Your task to perform on an android device: make emails show in primary in the gmail app Image 0: 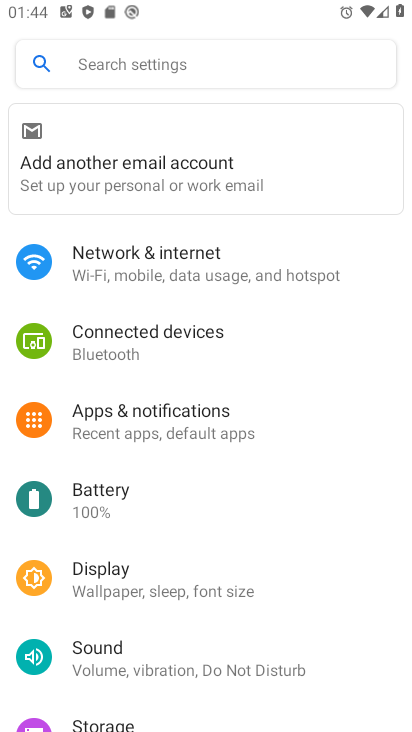
Step 0: press back button
Your task to perform on an android device: make emails show in primary in the gmail app Image 1: 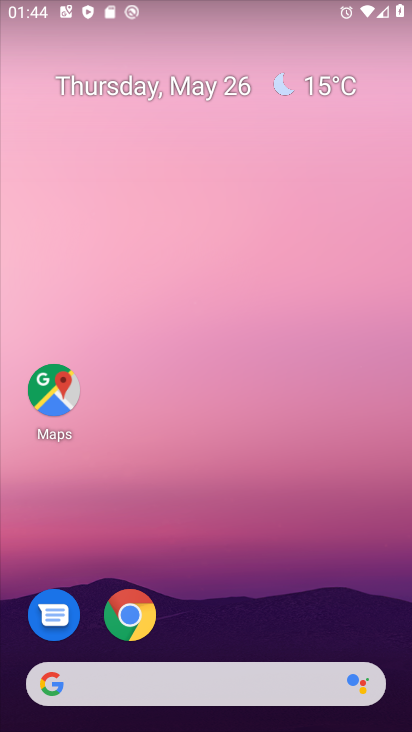
Step 1: drag from (223, 632) to (292, 6)
Your task to perform on an android device: make emails show in primary in the gmail app Image 2: 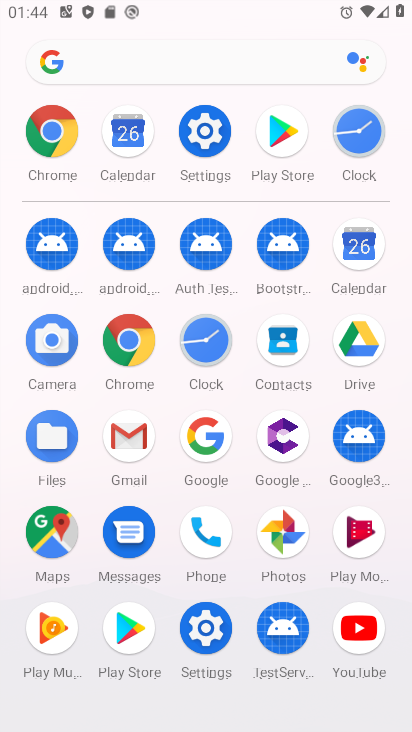
Step 2: click (126, 434)
Your task to perform on an android device: make emails show in primary in the gmail app Image 3: 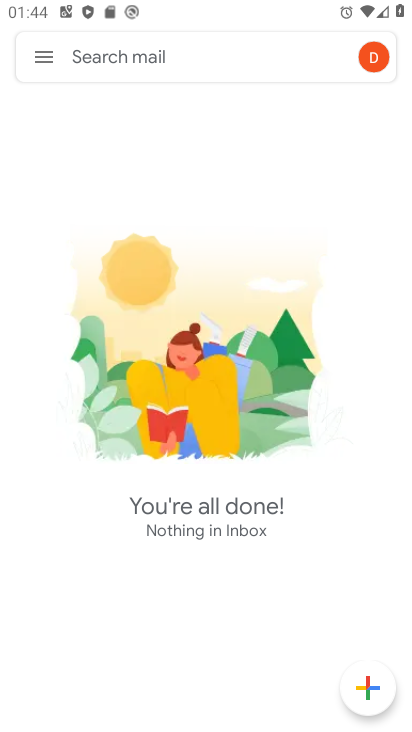
Step 3: click (48, 60)
Your task to perform on an android device: make emails show in primary in the gmail app Image 4: 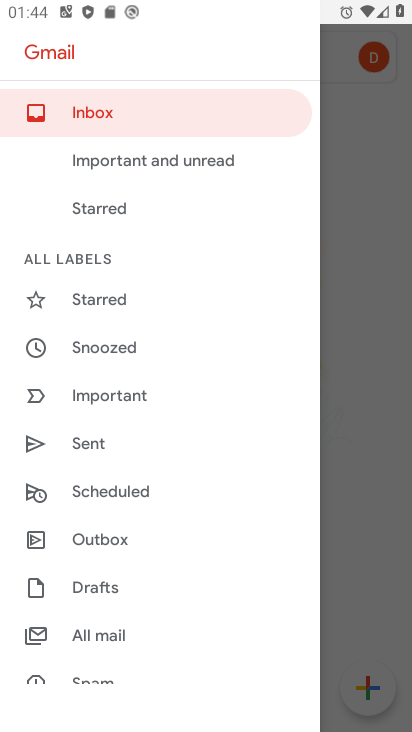
Step 4: drag from (150, 639) to (306, 88)
Your task to perform on an android device: make emails show in primary in the gmail app Image 5: 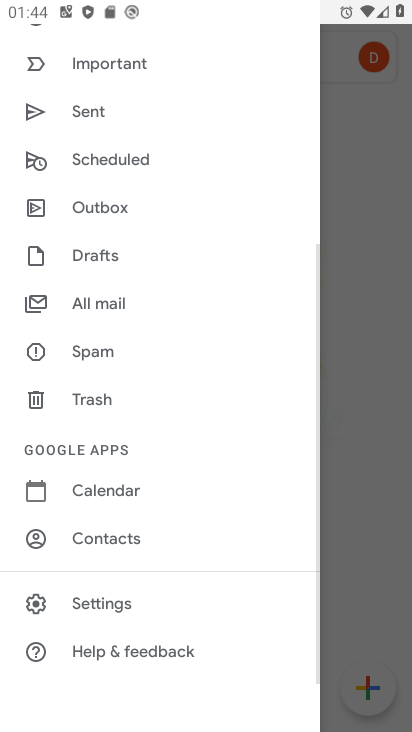
Step 5: click (102, 601)
Your task to perform on an android device: make emails show in primary in the gmail app Image 6: 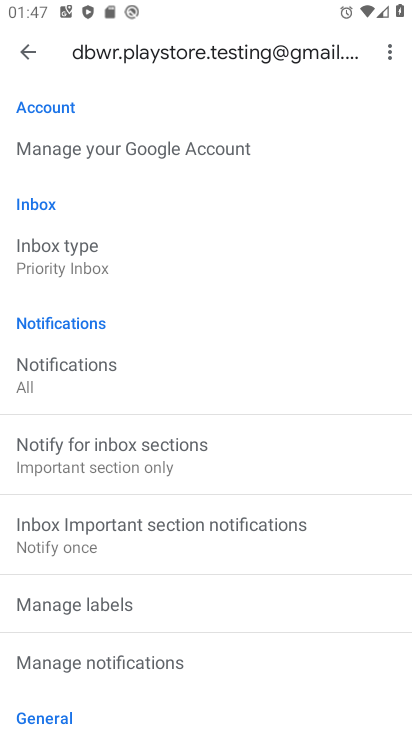
Step 6: task complete